Your task to perform on an android device: turn pop-ups on in chrome Image 0: 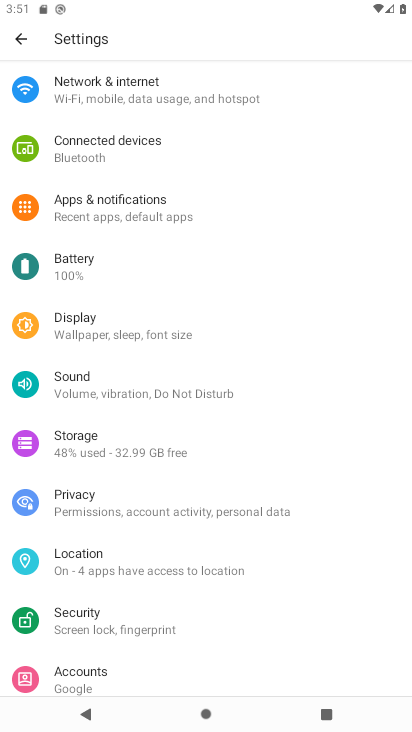
Step 0: press home button
Your task to perform on an android device: turn pop-ups on in chrome Image 1: 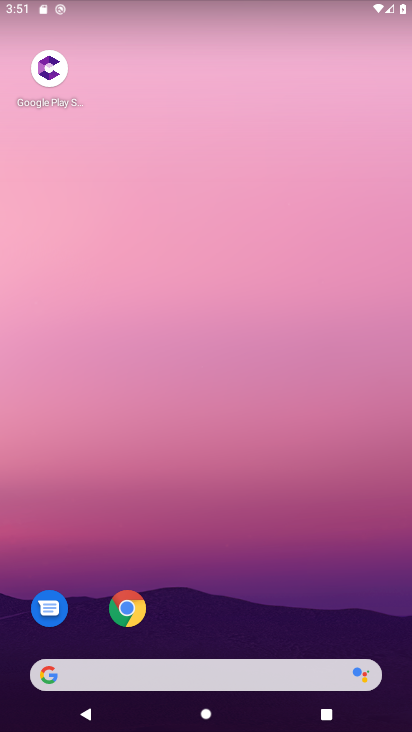
Step 1: click (135, 599)
Your task to perform on an android device: turn pop-ups on in chrome Image 2: 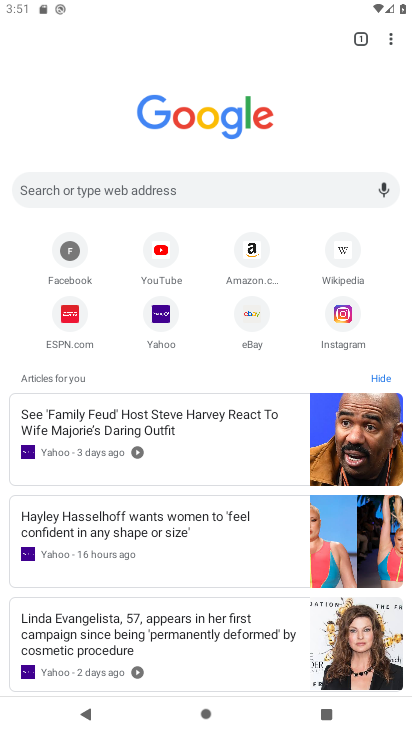
Step 2: click (385, 34)
Your task to perform on an android device: turn pop-ups on in chrome Image 3: 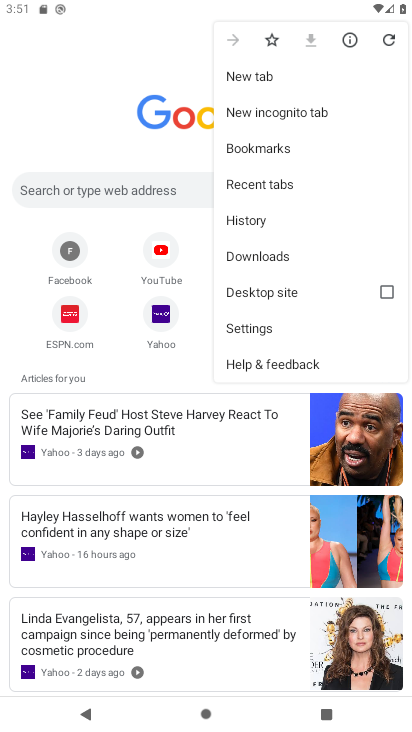
Step 3: click (239, 323)
Your task to perform on an android device: turn pop-ups on in chrome Image 4: 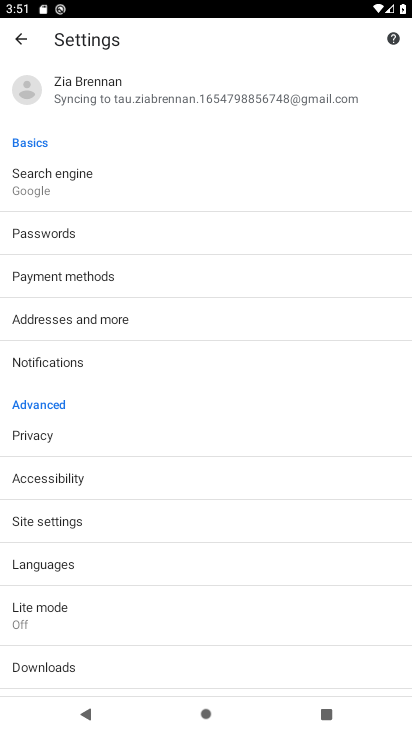
Step 4: click (69, 523)
Your task to perform on an android device: turn pop-ups on in chrome Image 5: 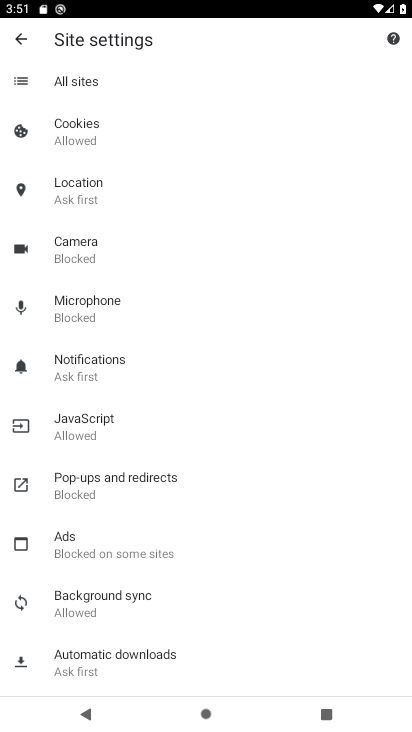
Step 5: click (66, 485)
Your task to perform on an android device: turn pop-ups on in chrome Image 6: 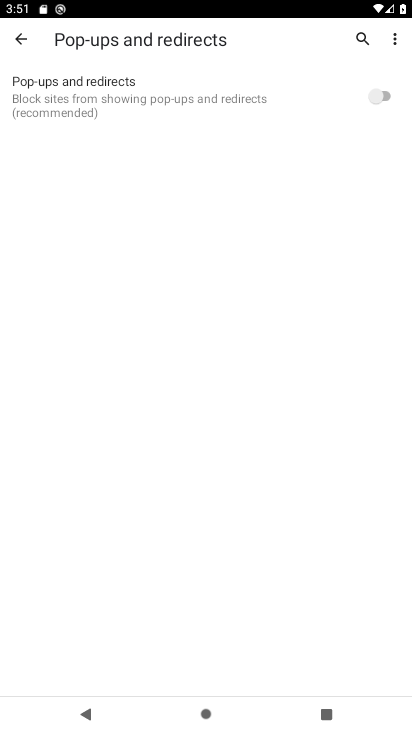
Step 6: click (391, 103)
Your task to perform on an android device: turn pop-ups on in chrome Image 7: 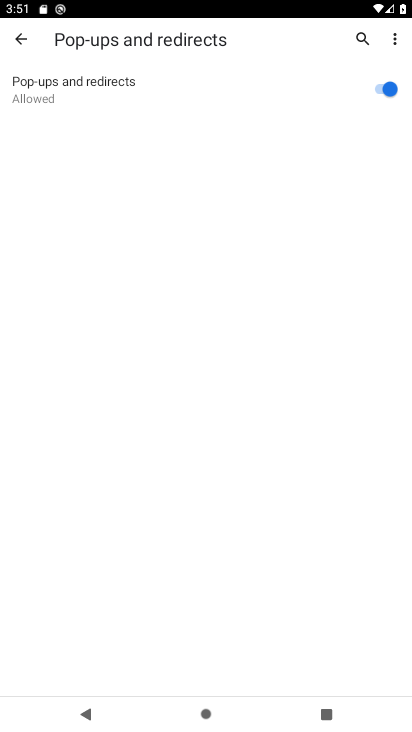
Step 7: task complete